Your task to perform on an android device: open sync settings in chrome Image 0: 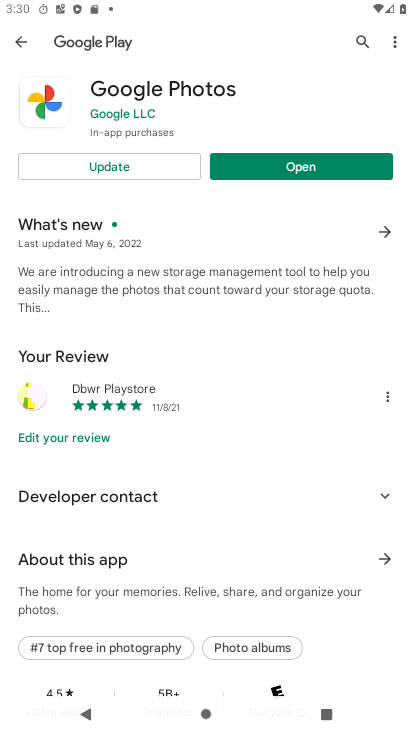
Step 0: press home button
Your task to perform on an android device: open sync settings in chrome Image 1: 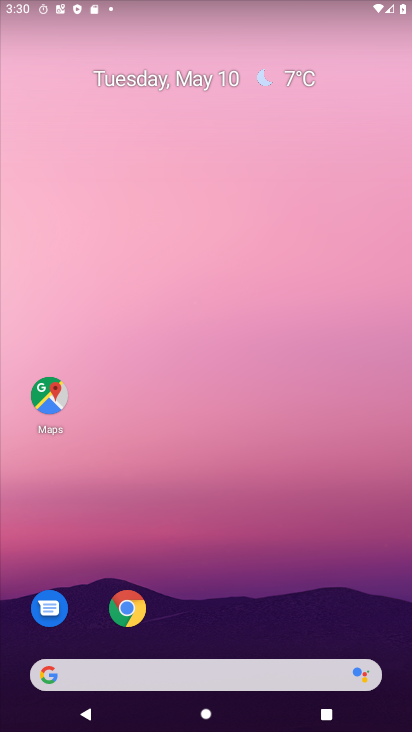
Step 1: click (130, 617)
Your task to perform on an android device: open sync settings in chrome Image 2: 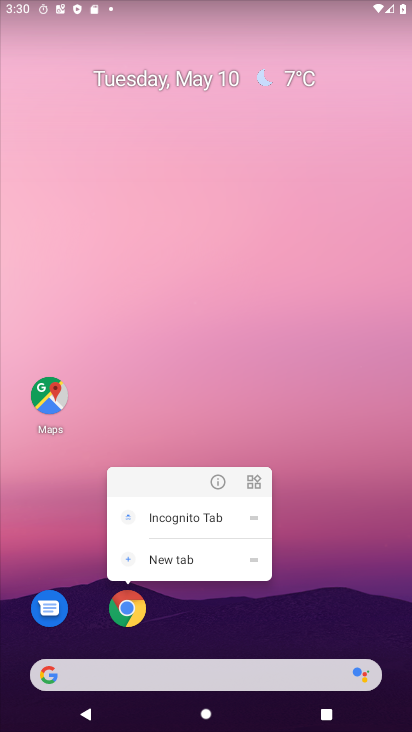
Step 2: click (127, 613)
Your task to perform on an android device: open sync settings in chrome Image 3: 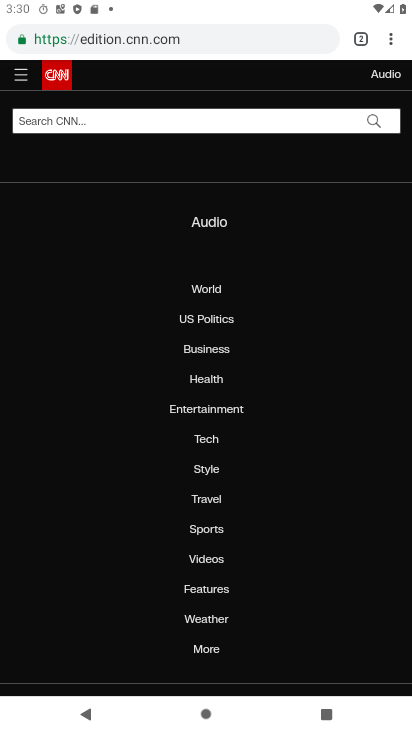
Step 3: drag from (394, 34) to (267, 472)
Your task to perform on an android device: open sync settings in chrome Image 4: 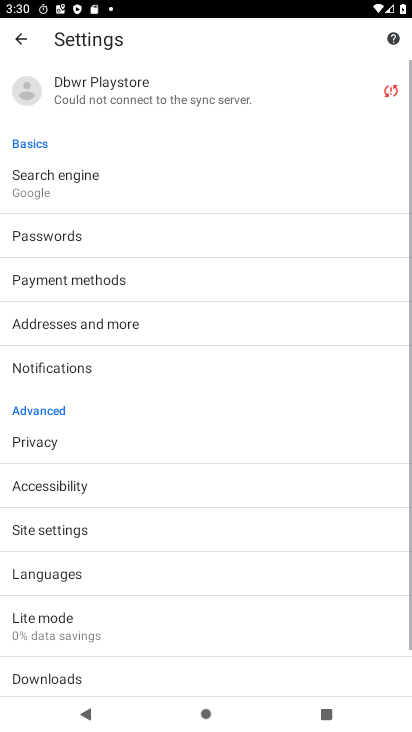
Step 4: click (97, 101)
Your task to perform on an android device: open sync settings in chrome Image 5: 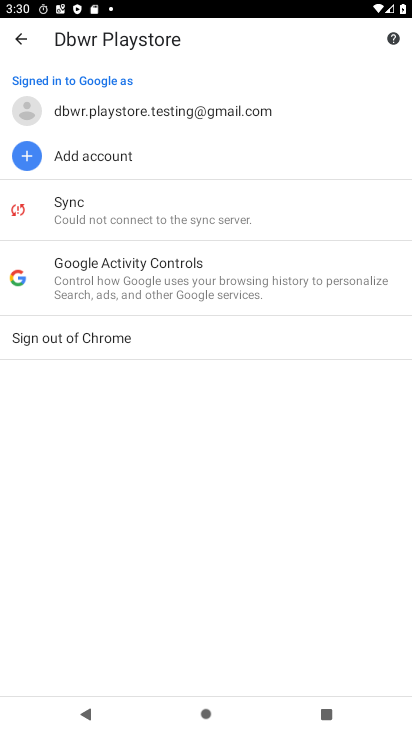
Step 5: click (66, 220)
Your task to perform on an android device: open sync settings in chrome Image 6: 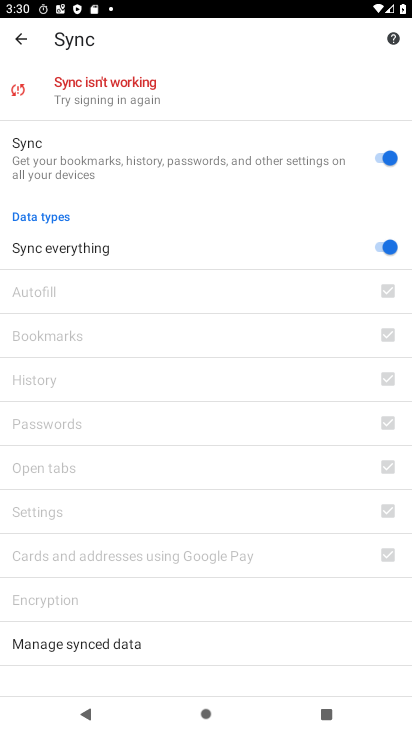
Step 6: task complete